Your task to perform on an android device: Go to Maps Image 0: 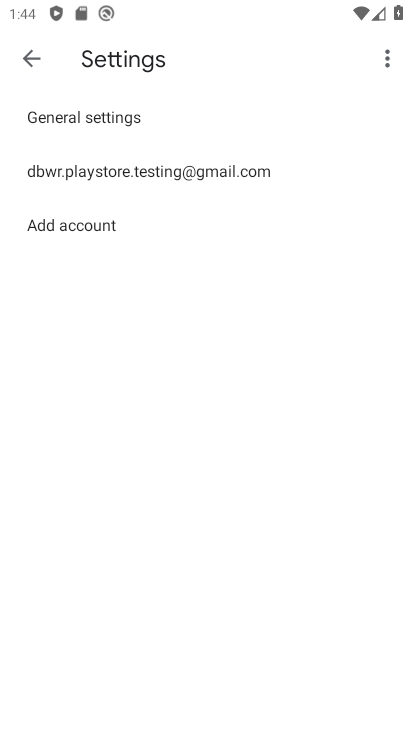
Step 0: press back button
Your task to perform on an android device: Go to Maps Image 1: 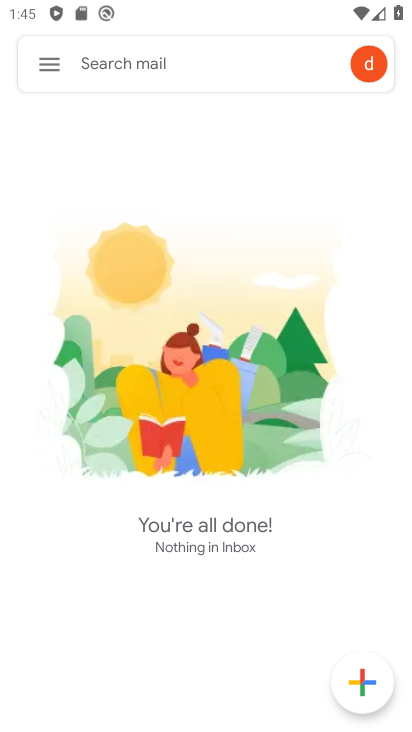
Step 1: press back button
Your task to perform on an android device: Go to Maps Image 2: 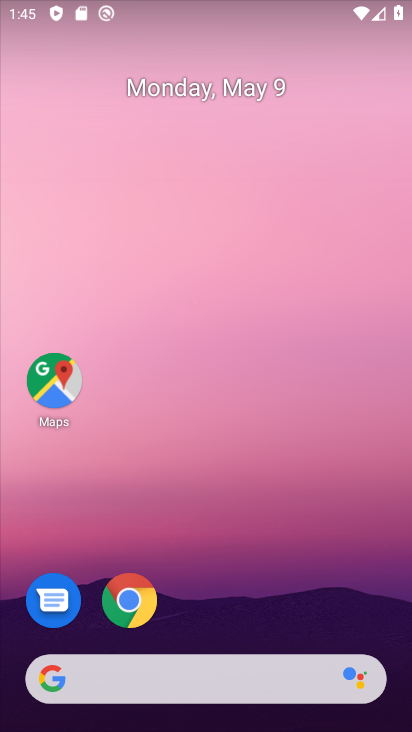
Step 2: drag from (274, 586) to (252, 22)
Your task to perform on an android device: Go to Maps Image 3: 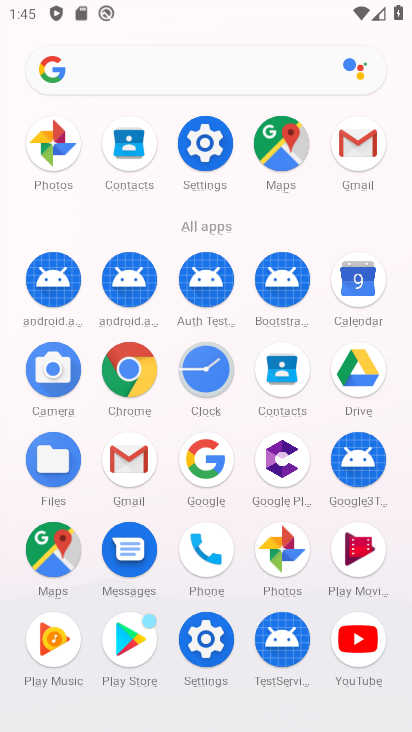
Step 3: click (54, 546)
Your task to perform on an android device: Go to Maps Image 4: 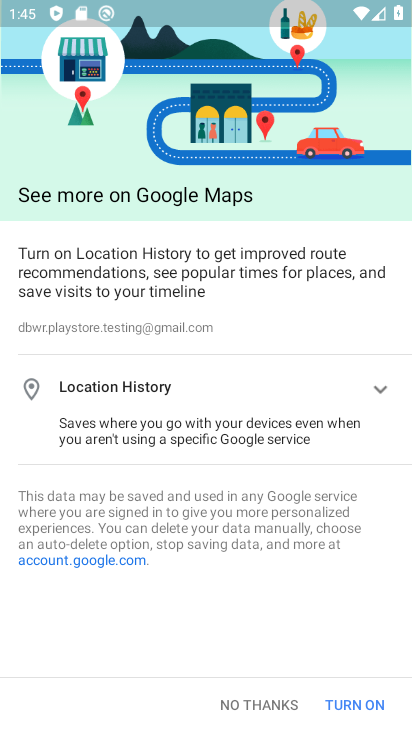
Step 4: click (341, 712)
Your task to perform on an android device: Go to Maps Image 5: 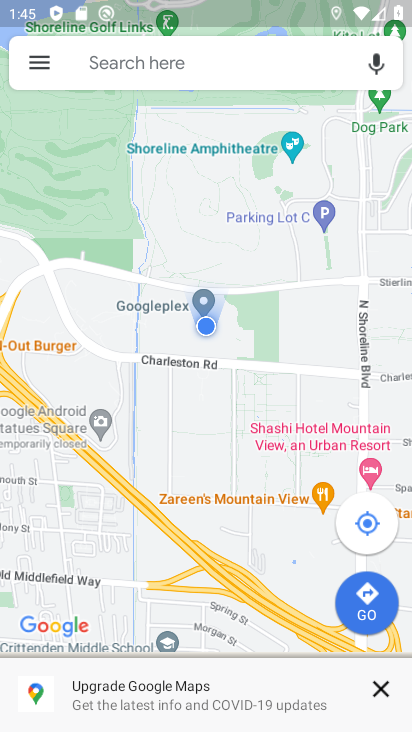
Step 5: task complete